Your task to perform on an android device: Open Google Chrome Image 0: 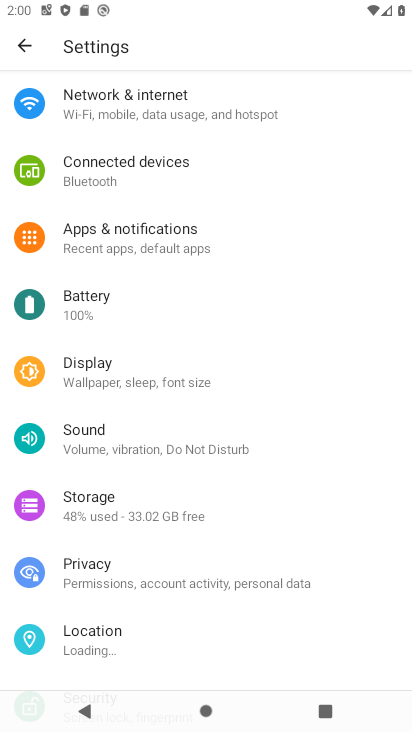
Step 0: press home button
Your task to perform on an android device: Open Google Chrome Image 1: 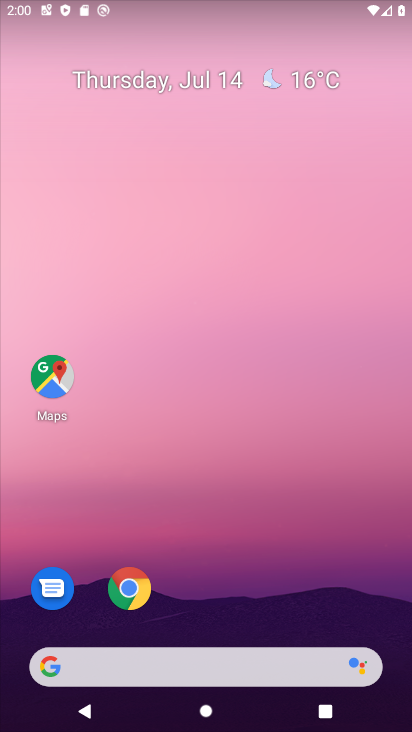
Step 1: click (137, 585)
Your task to perform on an android device: Open Google Chrome Image 2: 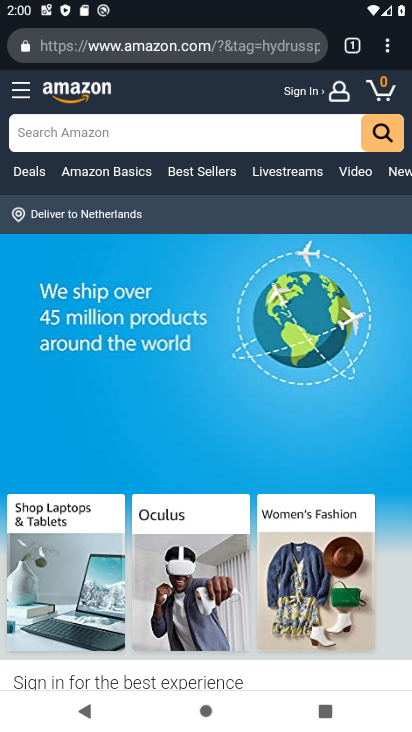
Step 2: task complete